Your task to perform on an android device: toggle notification dots Image 0: 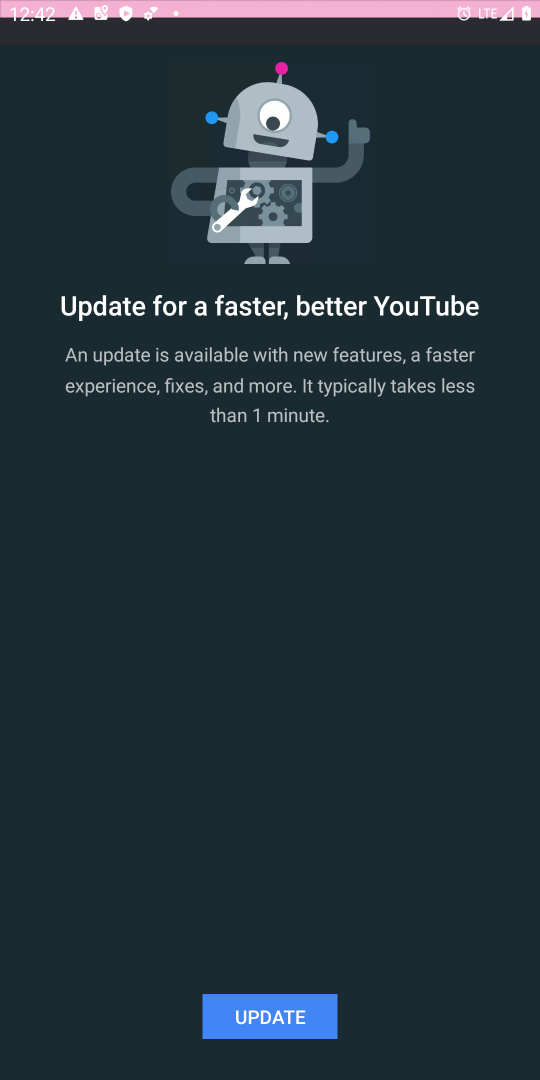
Step 0: drag from (285, 454) to (347, 18)
Your task to perform on an android device: toggle notification dots Image 1: 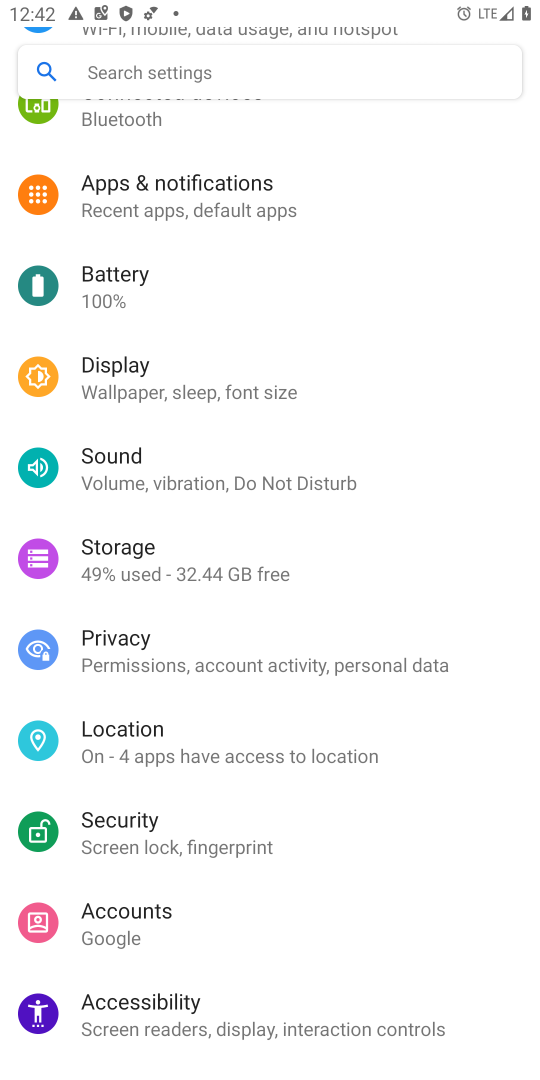
Step 1: click (240, 198)
Your task to perform on an android device: toggle notification dots Image 2: 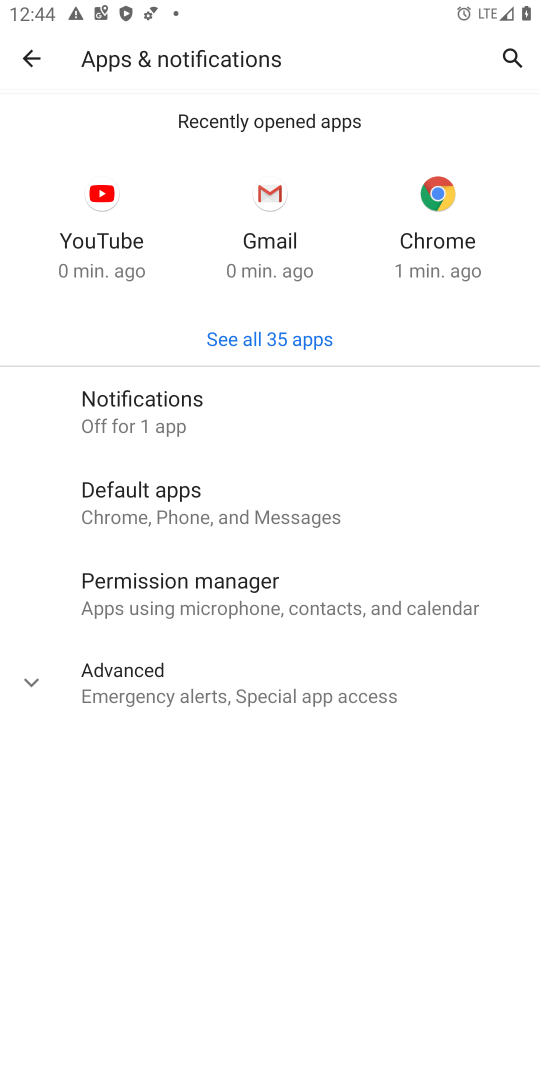
Step 2: click (218, 421)
Your task to perform on an android device: toggle notification dots Image 3: 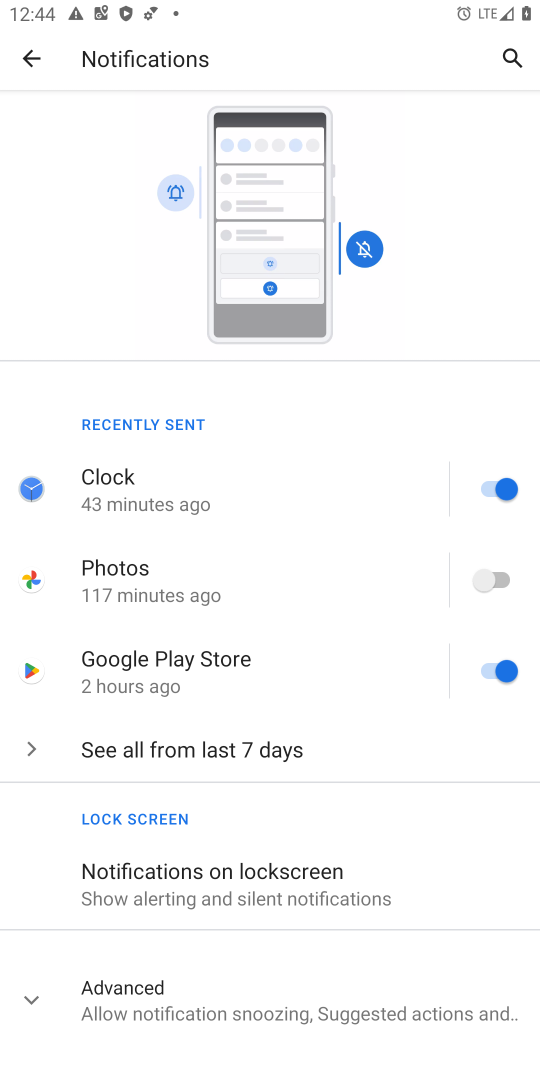
Step 3: click (271, 996)
Your task to perform on an android device: toggle notification dots Image 4: 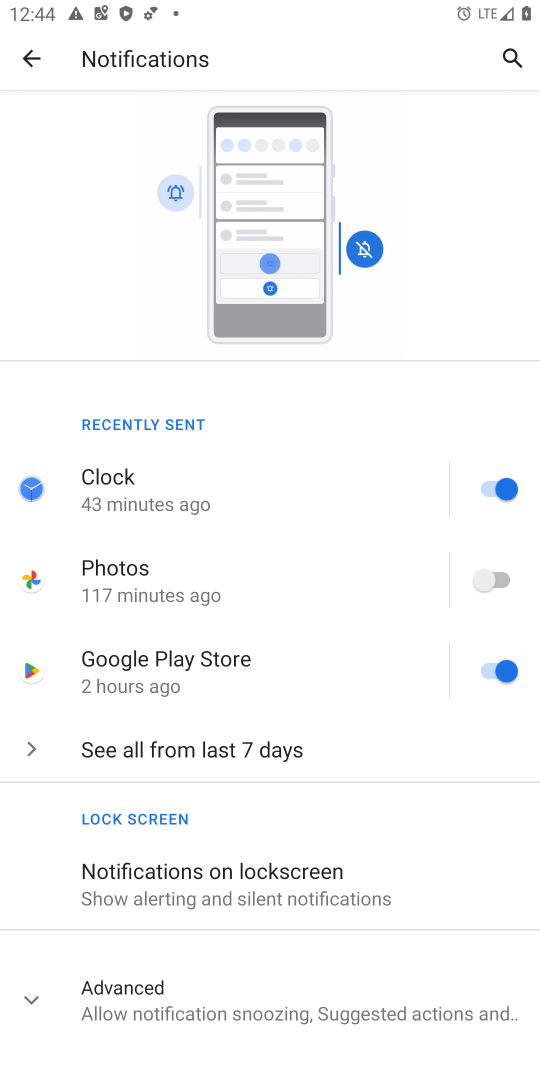
Step 4: drag from (265, 535) to (267, 406)
Your task to perform on an android device: toggle notification dots Image 5: 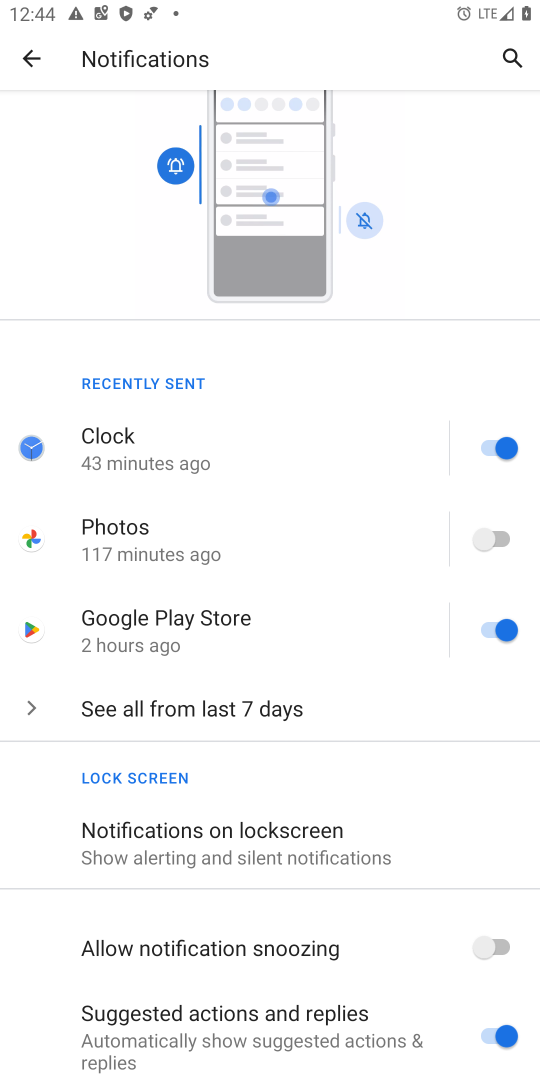
Step 5: drag from (294, 830) to (252, 232)
Your task to perform on an android device: toggle notification dots Image 6: 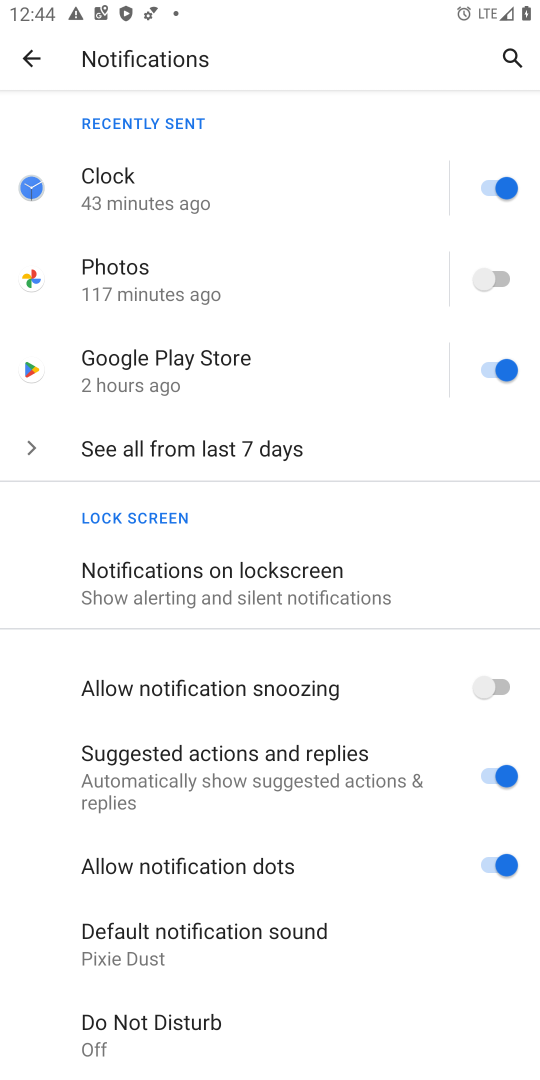
Step 6: click (499, 864)
Your task to perform on an android device: toggle notification dots Image 7: 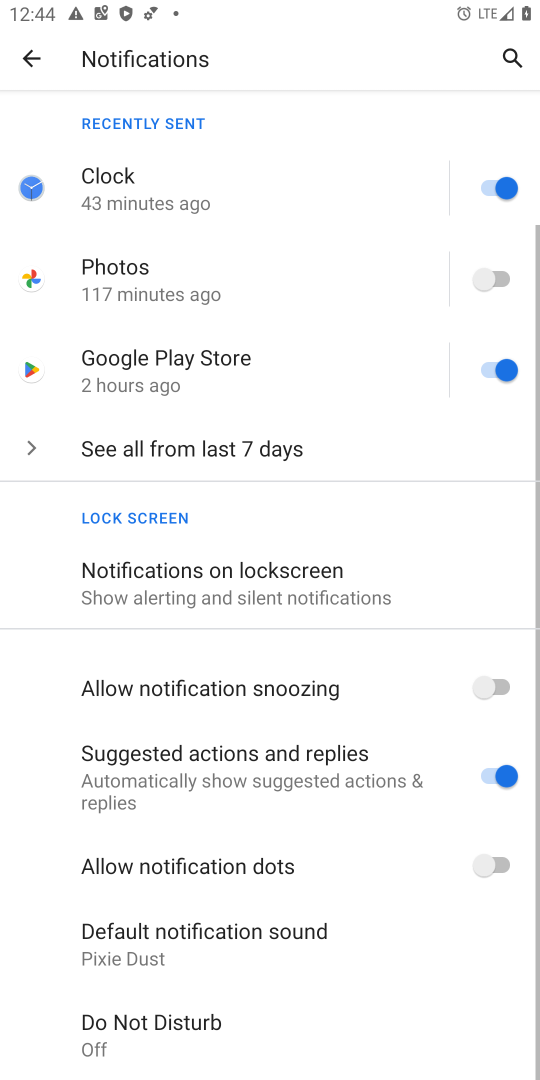
Step 7: task complete